Your task to perform on an android device: Open the calendar app, open the side menu, and click the "Day" option Image 0: 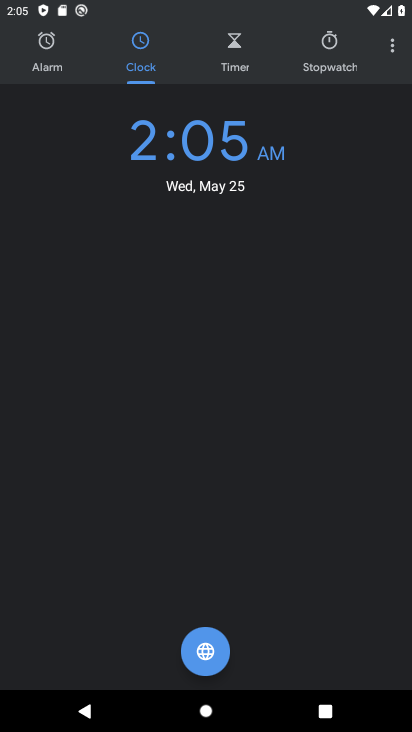
Step 0: press home button
Your task to perform on an android device: Open the calendar app, open the side menu, and click the "Day" option Image 1: 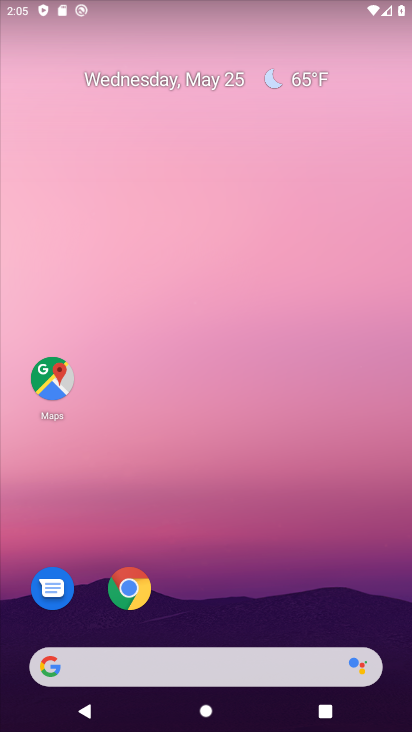
Step 1: drag from (172, 640) to (244, 257)
Your task to perform on an android device: Open the calendar app, open the side menu, and click the "Day" option Image 2: 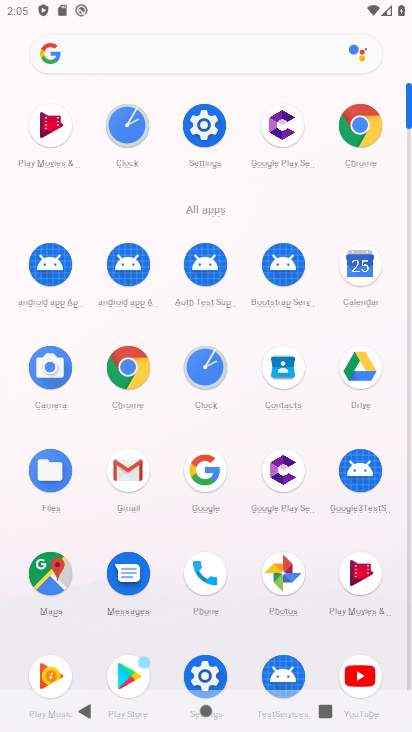
Step 2: drag from (248, 625) to (321, 302)
Your task to perform on an android device: Open the calendar app, open the side menu, and click the "Day" option Image 3: 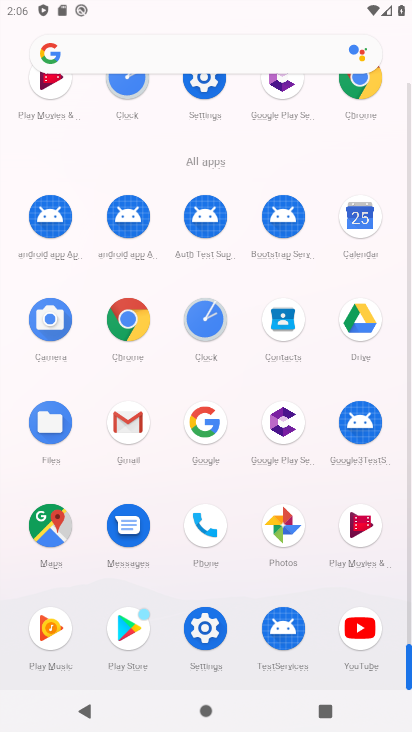
Step 3: click (363, 219)
Your task to perform on an android device: Open the calendar app, open the side menu, and click the "Day" option Image 4: 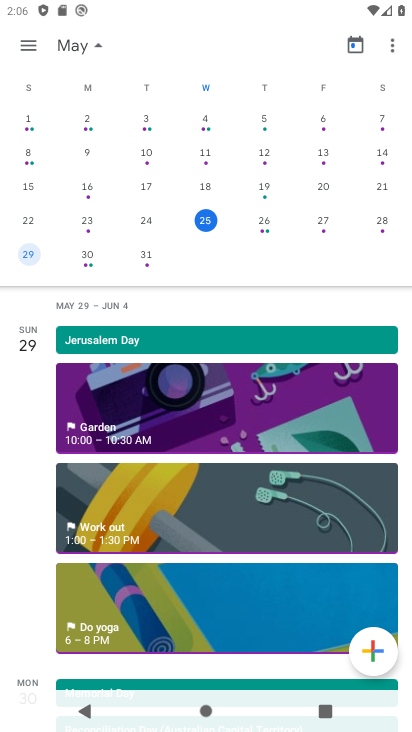
Step 4: click (34, 46)
Your task to perform on an android device: Open the calendar app, open the side menu, and click the "Day" option Image 5: 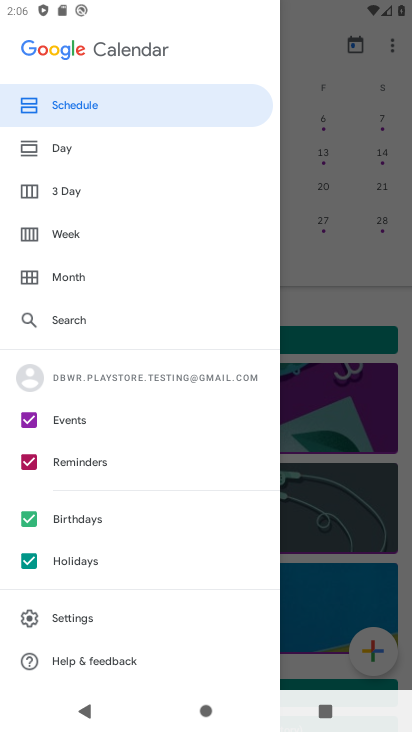
Step 5: click (76, 151)
Your task to perform on an android device: Open the calendar app, open the side menu, and click the "Day" option Image 6: 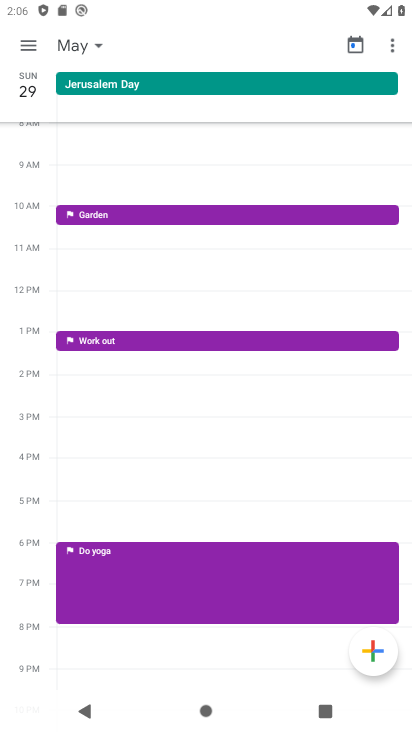
Step 6: task complete